Your task to perform on an android device: Search for pizza restaurants on Maps Image 0: 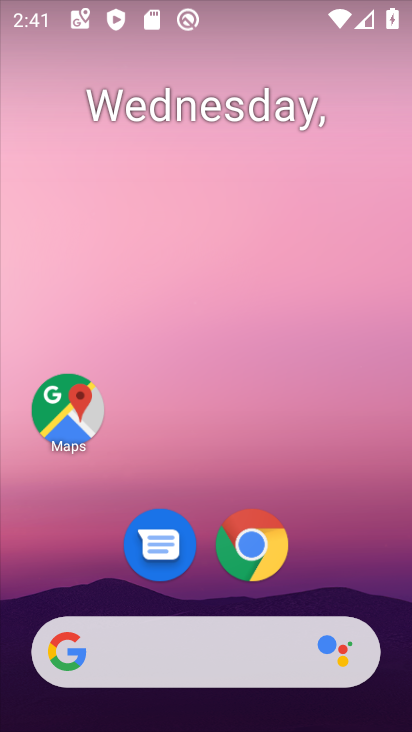
Step 0: press home button
Your task to perform on an android device: Search for pizza restaurants on Maps Image 1: 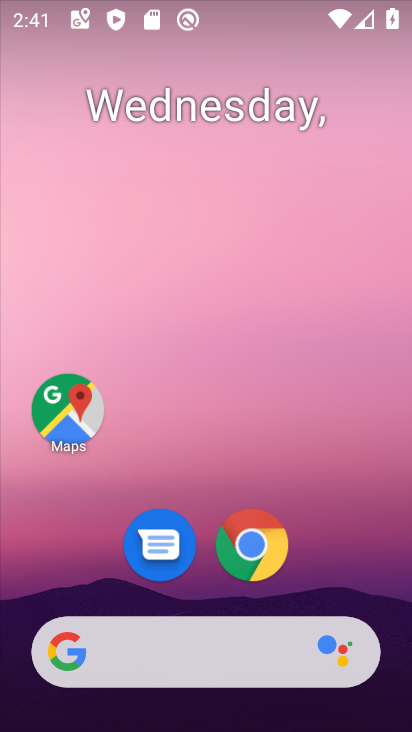
Step 1: click (66, 407)
Your task to perform on an android device: Search for pizza restaurants on Maps Image 2: 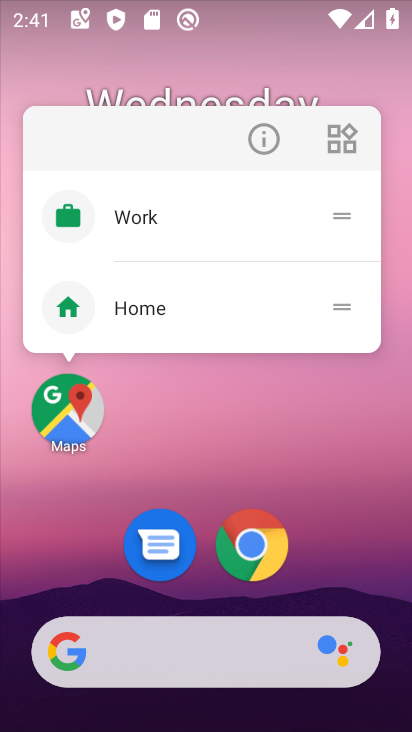
Step 2: click (62, 417)
Your task to perform on an android device: Search for pizza restaurants on Maps Image 3: 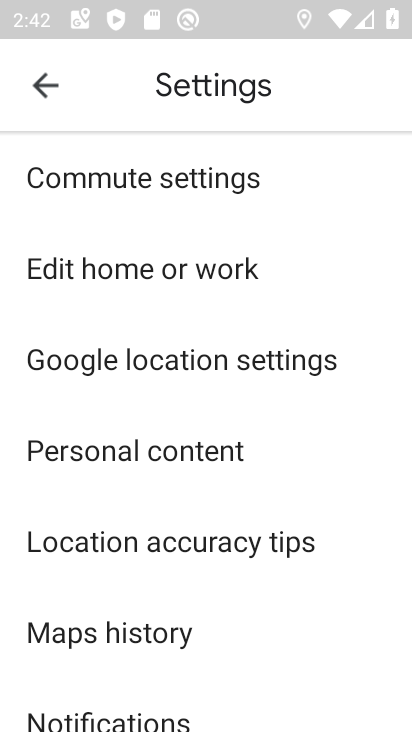
Step 3: click (41, 84)
Your task to perform on an android device: Search for pizza restaurants on Maps Image 4: 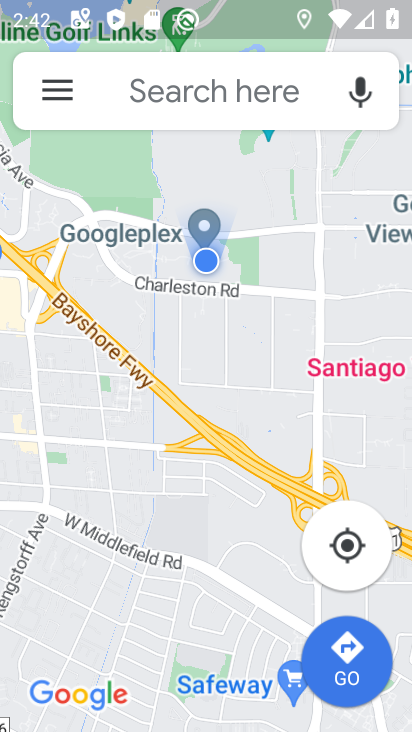
Step 4: click (177, 116)
Your task to perform on an android device: Search for pizza restaurants on Maps Image 5: 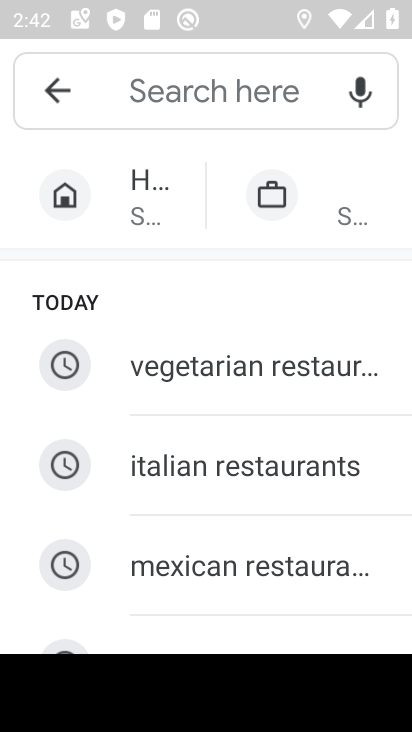
Step 5: drag from (193, 546) to (298, 69)
Your task to perform on an android device: Search for pizza restaurants on Maps Image 6: 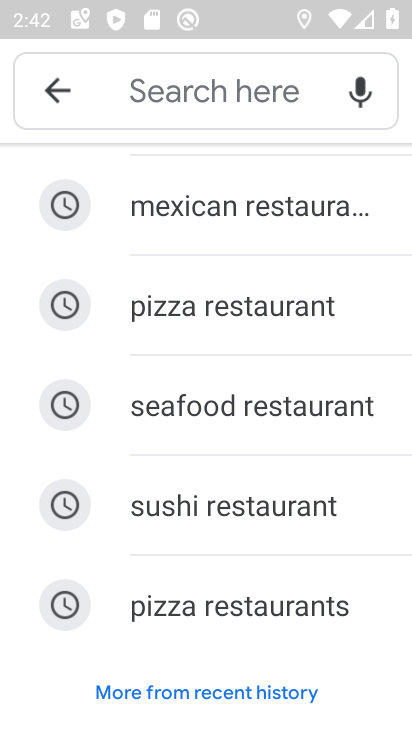
Step 6: click (172, 613)
Your task to perform on an android device: Search for pizza restaurants on Maps Image 7: 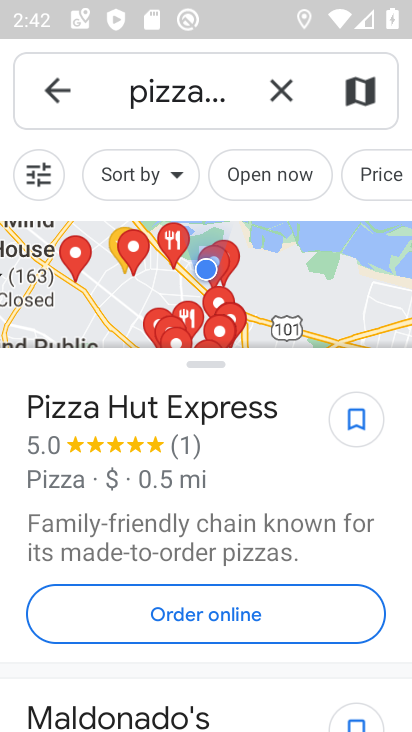
Step 7: task complete